Your task to perform on an android device: turn off improve location accuracy Image 0: 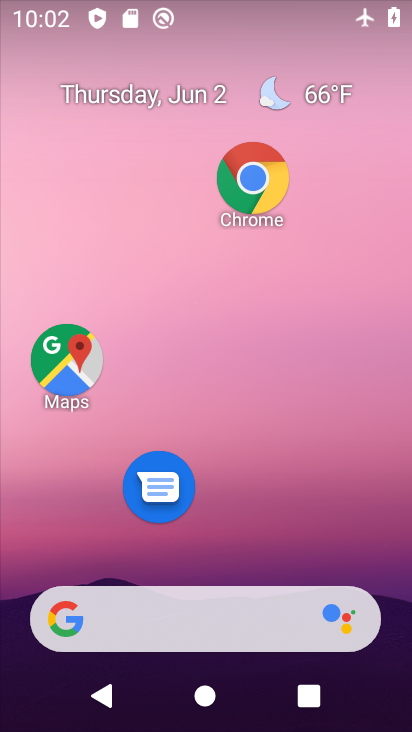
Step 0: drag from (228, 726) to (176, 45)
Your task to perform on an android device: turn off improve location accuracy Image 1: 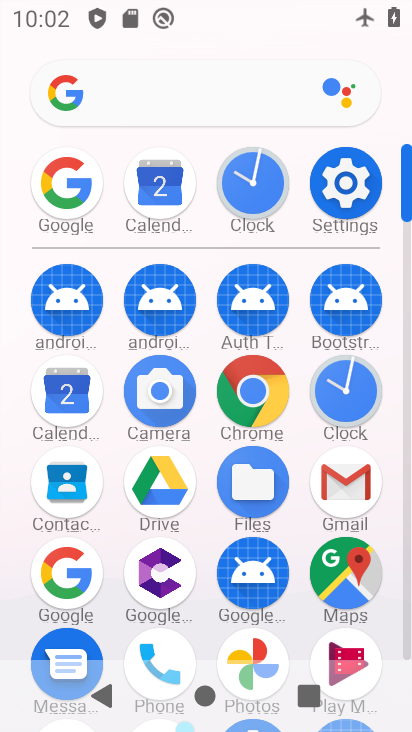
Step 1: click (351, 181)
Your task to perform on an android device: turn off improve location accuracy Image 2: 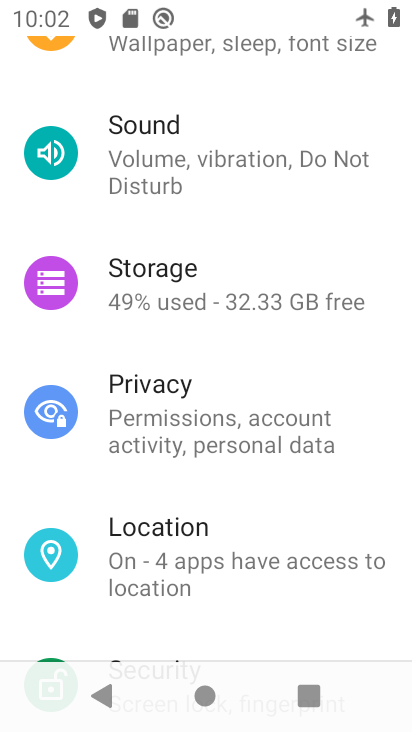
Step 2: click (154, 555)
Your task to perform on an android device: turn off improve location accuracy Image 3: 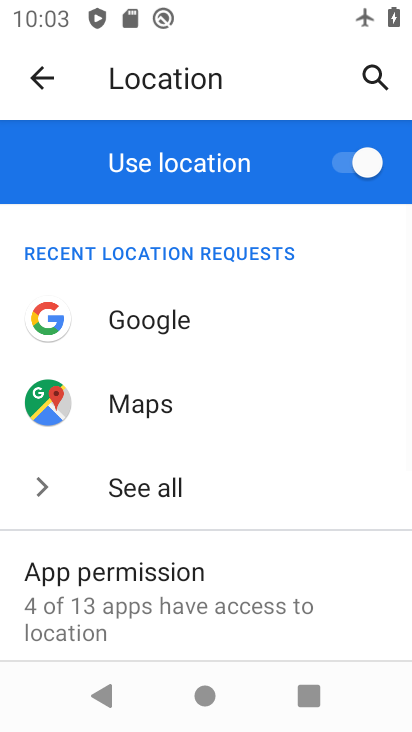
Step 3: drag from (214, 649) to (211, 322)
Your task to perform on an android device: turn off improve location accuracy Image 4: 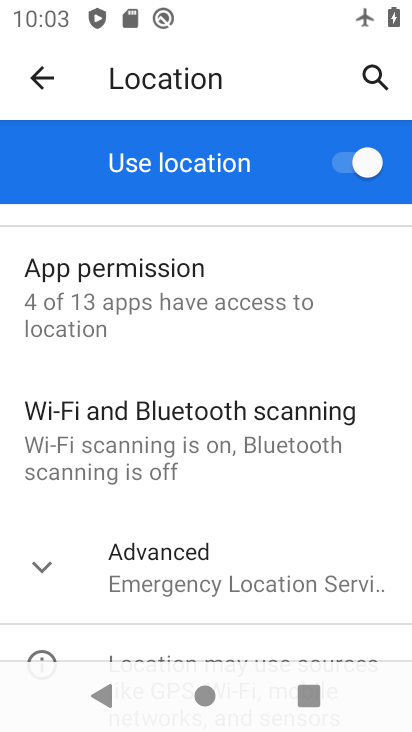
Step 4: click (170, 581)
Your task to perform on an android device: turn off improve location accuracy Image 5: 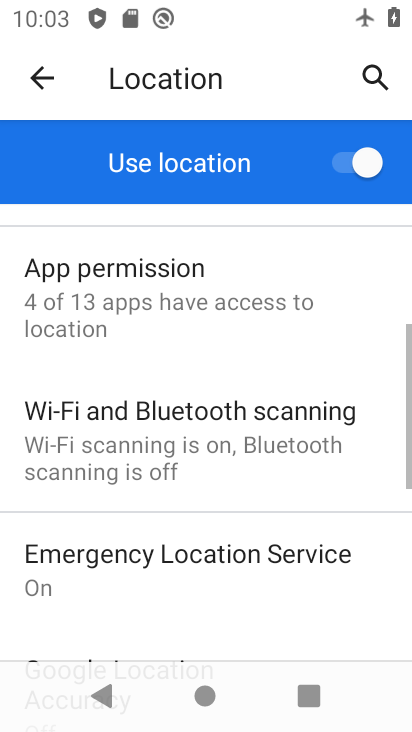
Step 5: drag from (241, 647) to (232, 288)
Your task to perform on an android device: turn off improve location accuracy Image 6: 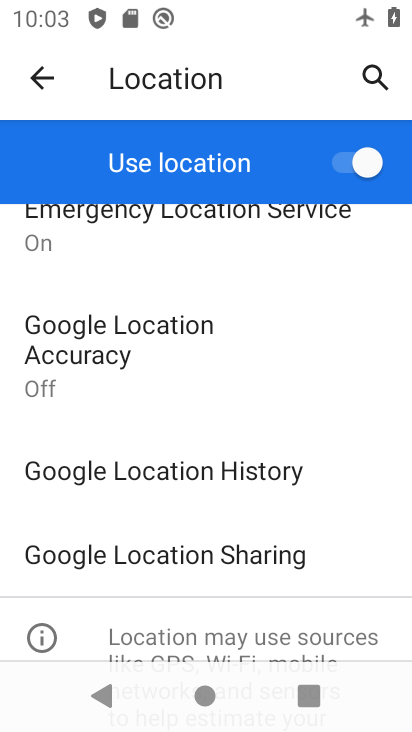
Step 6: click (111, 332)
Your task to perform on an android device: turn off improve location accuracy Image 7: 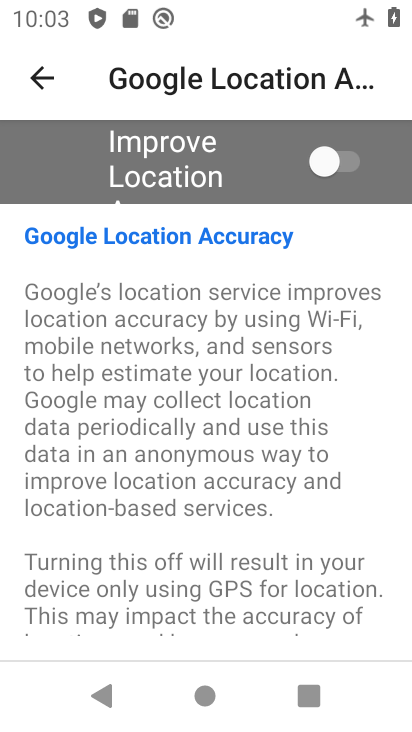
Step 7: task complete